Your task to perform on an android device: turn on location history Image 0: 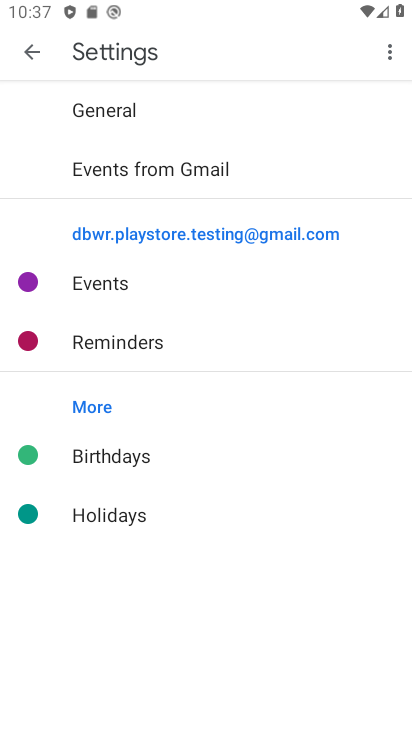
Step 0: press home button
Your task to perform on an android device: turn on location history Image 1: 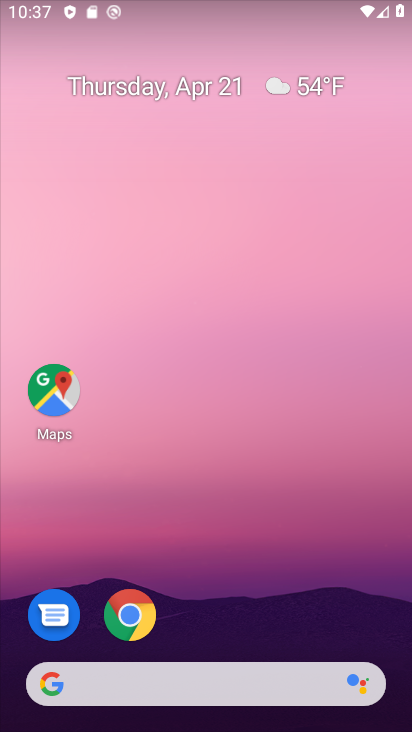
Step 1: drag from (221, 626) to (232, 23)
Your task to perform on an android device: turn on location history Image 2: 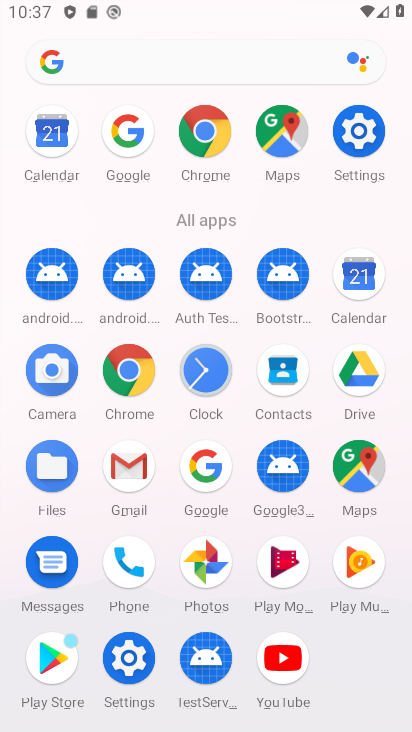
Step 2: click (127, 657)
Your task to perform on an android device: turn on location history Image 3: 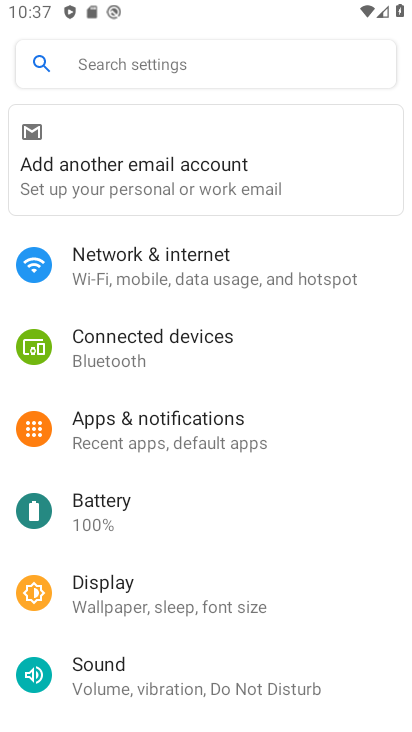
Step 3: drag from (127, 659) to (155, 536)
Your task to perform on an android device: turn on location history Image 4: 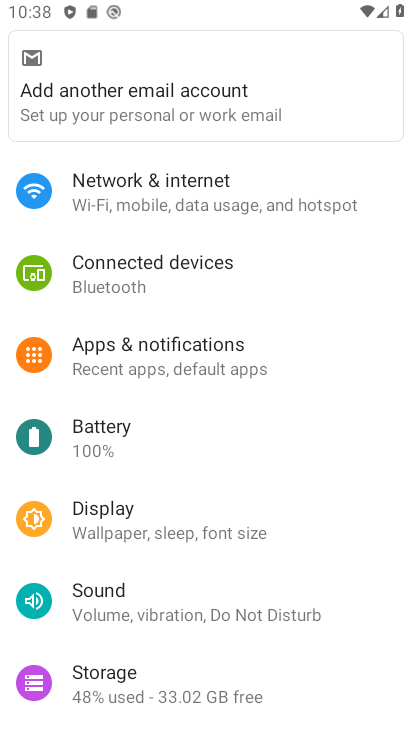
Step 4: drag from (152, 645) to (157, 520)
Your task to perform on an android device: turn on location history Image 5: 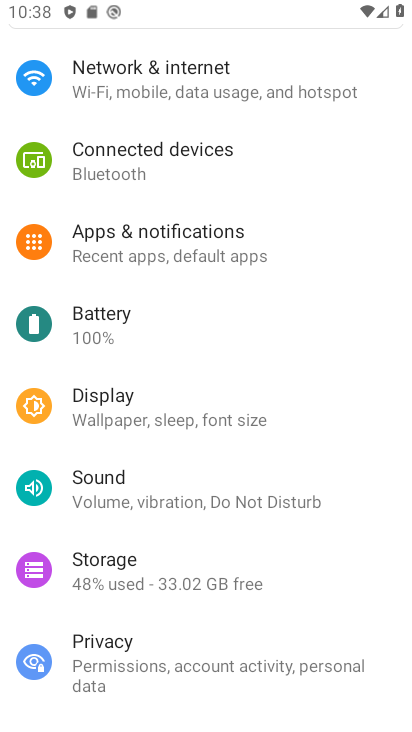
Step 5: drag from (140, 621) to (144, 542)
Your task to perform on an android device: turn on location history Image 6: 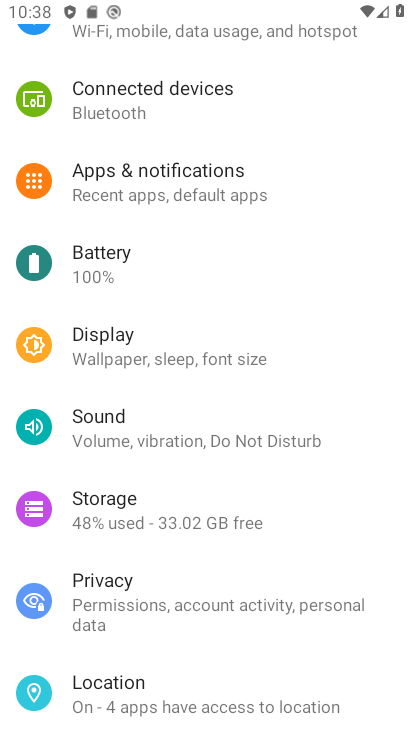
Step 6: click (132, 683)
Your task to perform on an android device: turn on location history Image 7: 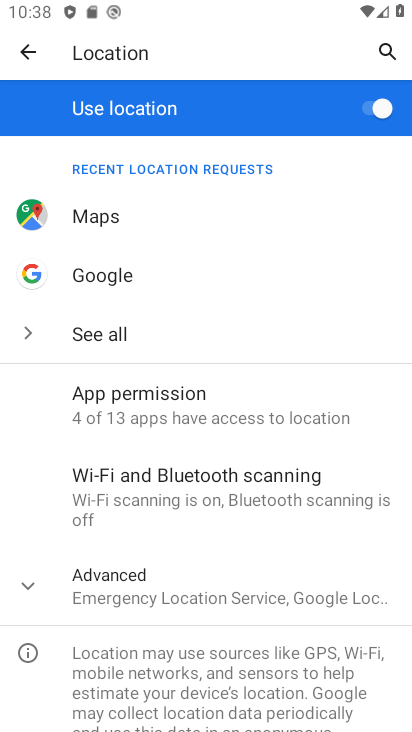
Step 7: click (130, 597)
Your task to perform on an android device: turn on location history Image 8: 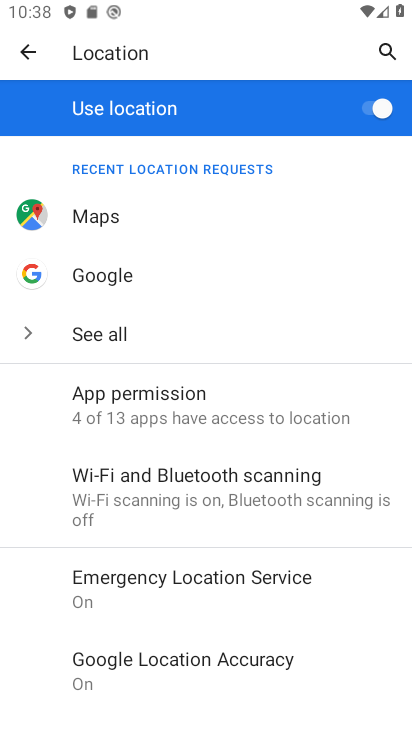
Step 8: drag from (134, 649) to (158, 555)
Your task to perform on an android device: turn on location history Image 9: 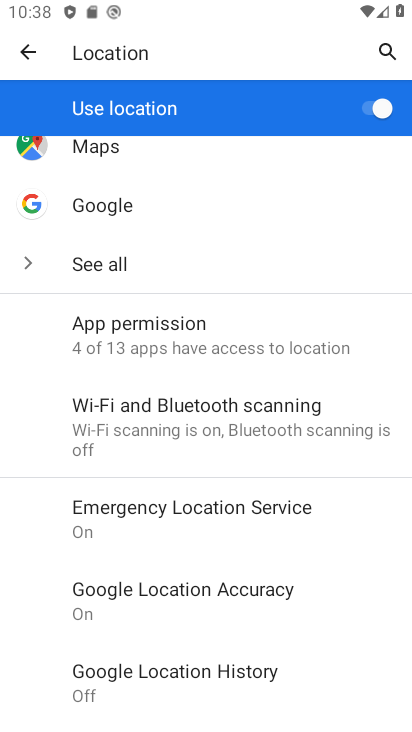
Step 9: drag from (156, 613) to (158, 559)
Your task to perform on an android device: turn on location history Image 10: 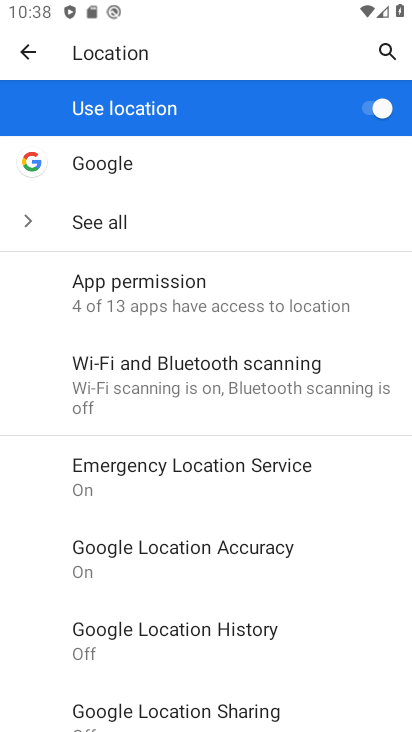
Step 10: drag from (141, 644) to (144, 565)
Your task to perform on an android device: turn on location history Image 11: 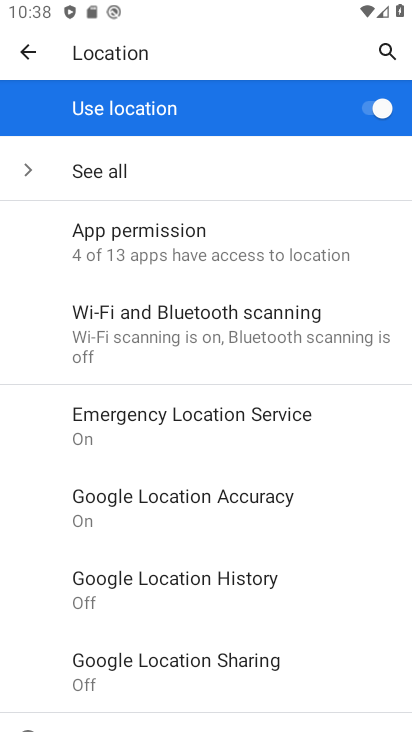
Step 11: click (148, 594)
Your task to perform on an android device: turn on location history Image 12: 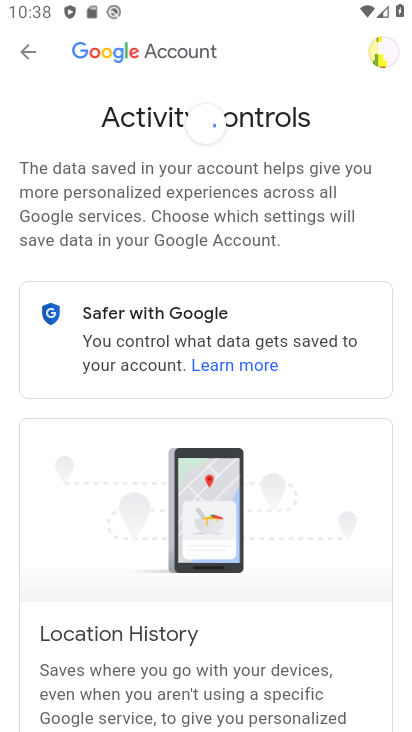
Step 12: task complete